Your task to perform on an android device: open chrome privacy settings Image 0: 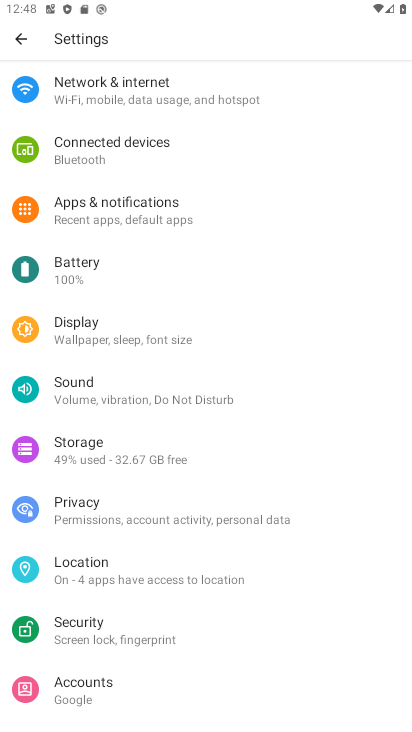
Step 0: press home button
Your task to perform on an android device: open chrome privacy settings Image 1: 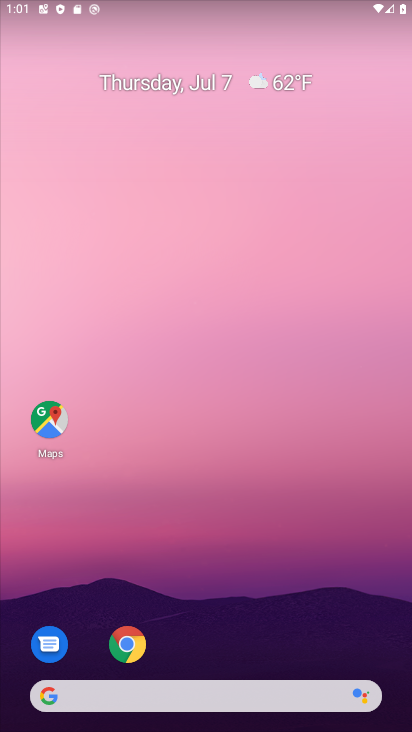
Step 1: click (69, 543)
Your task to perform on an android device: open chrome privacy settings Image 2: 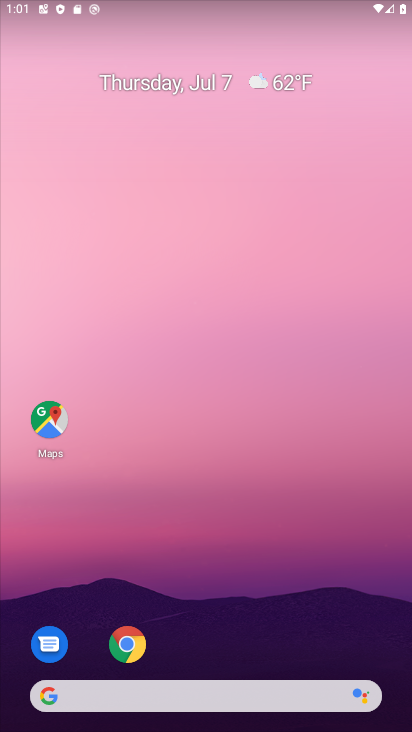
Step 2: click (135, 631)
Your task to perform on an android device: open chrome privacy settings Image 3: 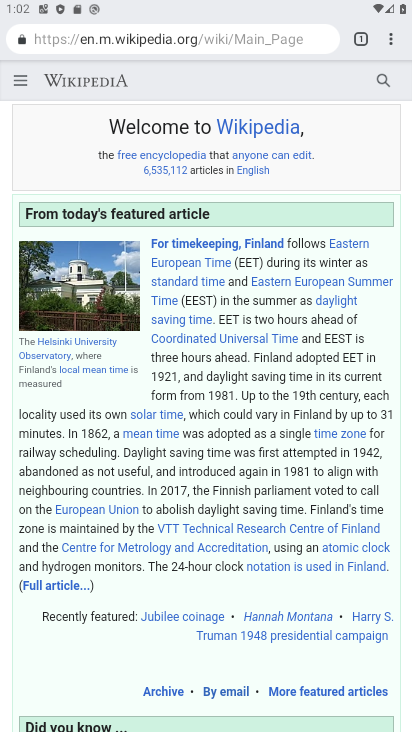
Step 3: click (388, 43)
Your task to perform on an android device: open chrome privacy settings Image 4: 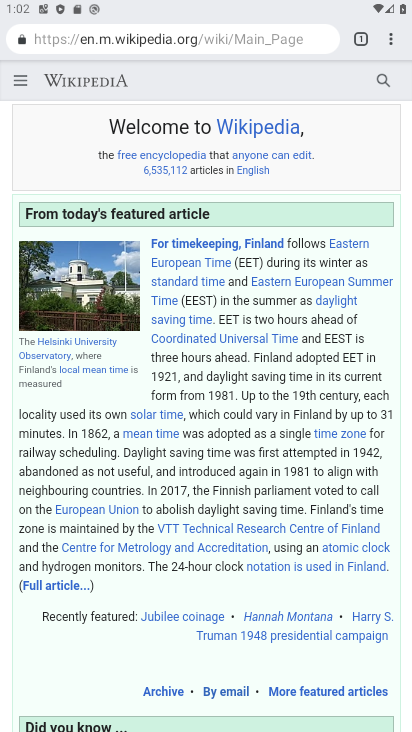
Step 4: click (397, 40)
Your task to perform on an android device: open chrome privacy settings Image 5: 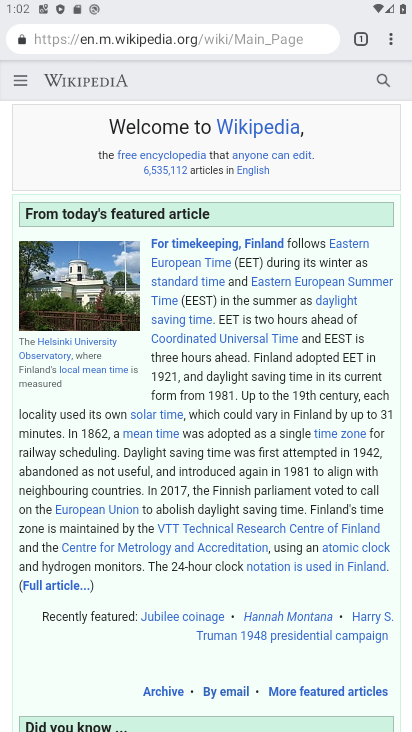
Step 5: click (395, 40)
Your task to perform on an android device: open chrome privacy settings Image 6: 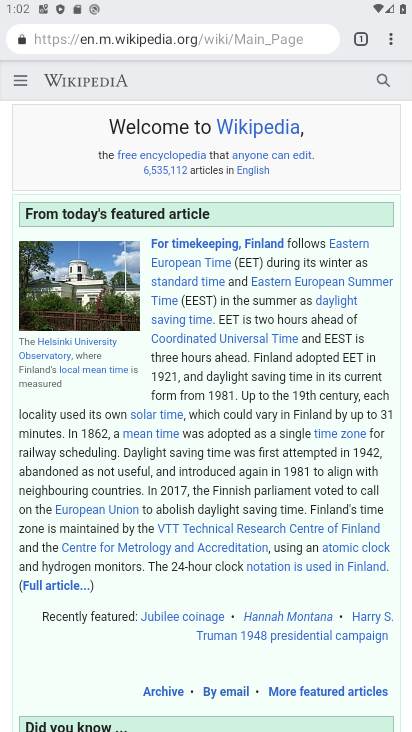
Step 6: click (394, 37)
Your task to perform on an android device: open chrome privacy settings Image 7: 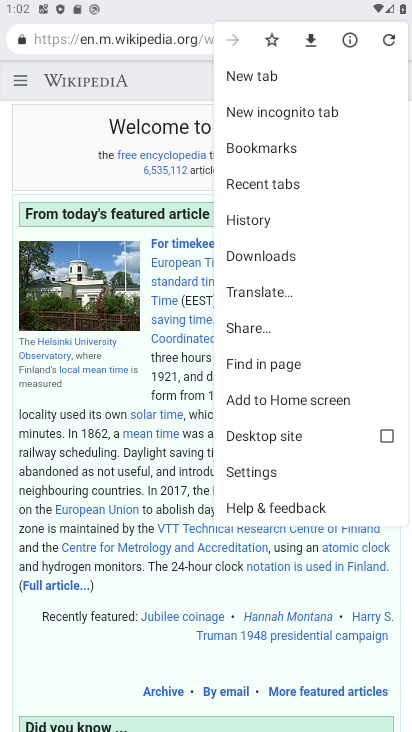
Step 7: click (276, 476)
Your task to perform on an android device: open chrome privacy settings Image 8: 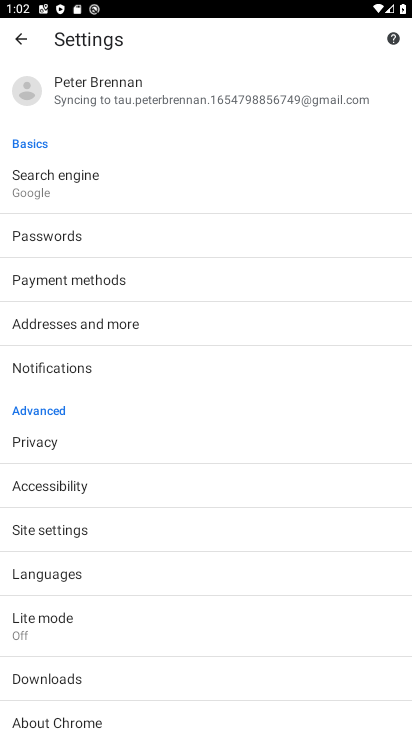
Step 8: click (68, 438)
Your task to perform on an android device: open chrome privacy settings Image 9: 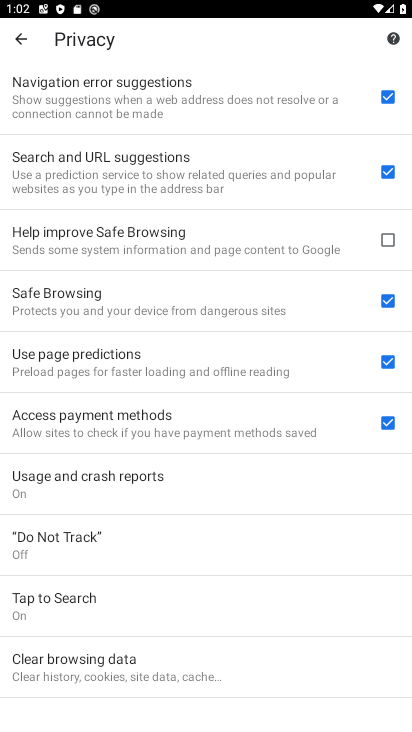
Step 9: task complete